Your task to perform on an android device: Go to battery settings Image 0: 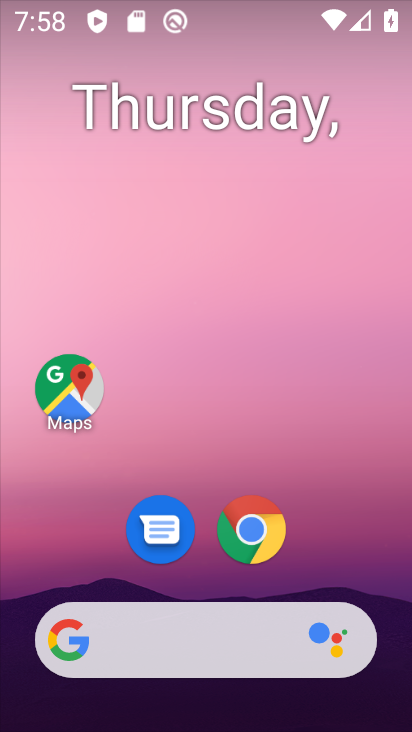
Step 0: press home button
Your task to perform on an android device: Go to battery settings Image 1: 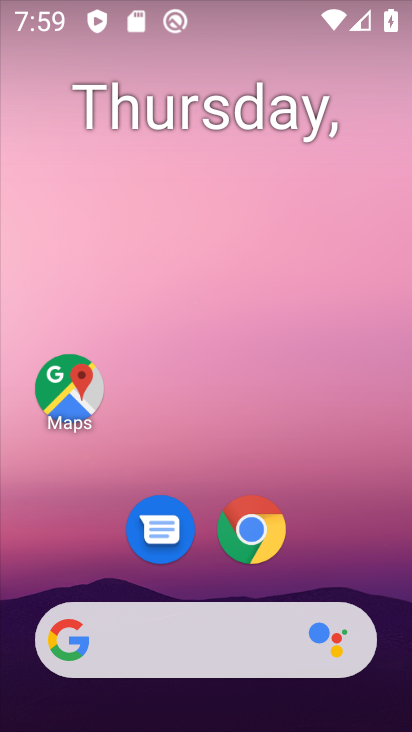
Step 1: drag from (170, 635) to (350, 75)
Your task to perform on an android device: Go to battery settings Image 2: 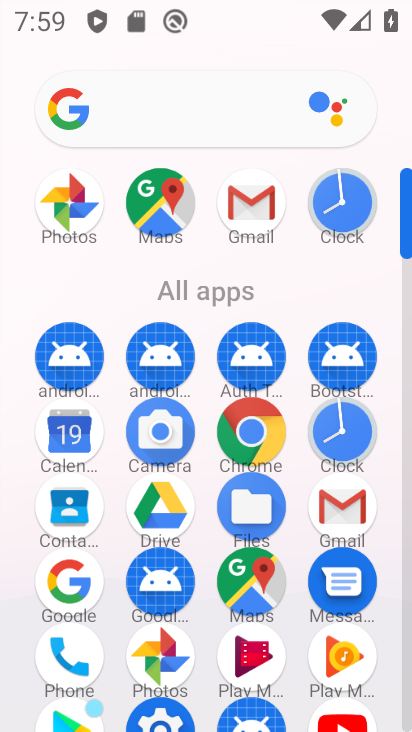
Step 2: drag from (208, 579) to (393, 114)
Your task to perform on an android device: Go to battery settings Image 3: 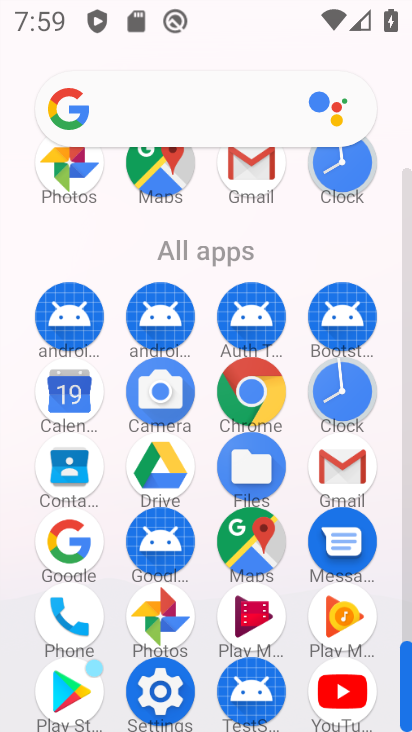
Step 3: click (153, 682)
Your task to perform on an android device: Go to battery settings Image 4: 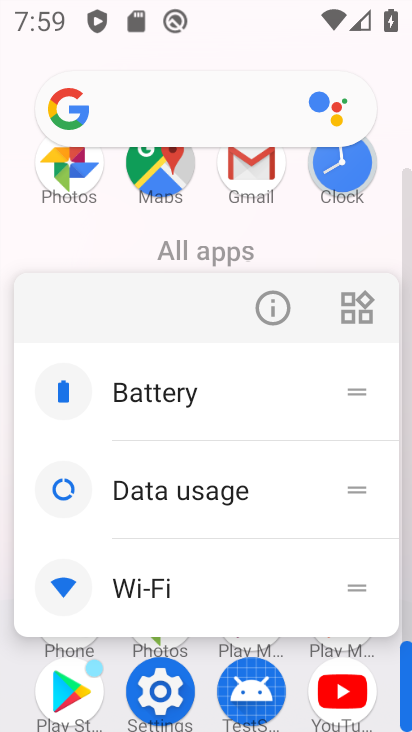
Step 4: click (151, 697)
Your task to perform on an android device: Go to battery settings Image 5: 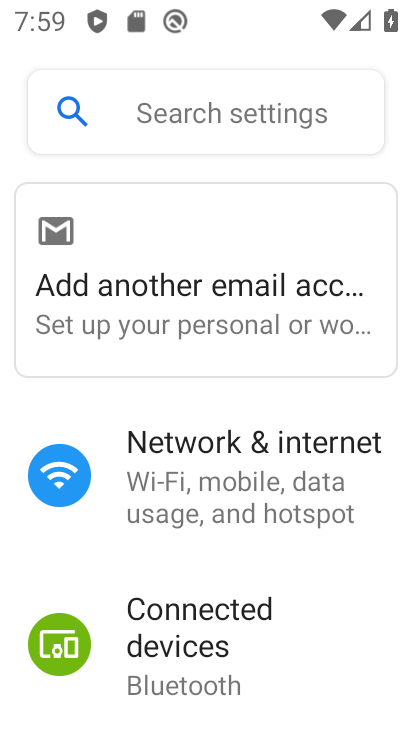
Step 5: drag from (262, 664) to (377, 282)
Your task to perform on an android device: Go to battery settings Image 6: 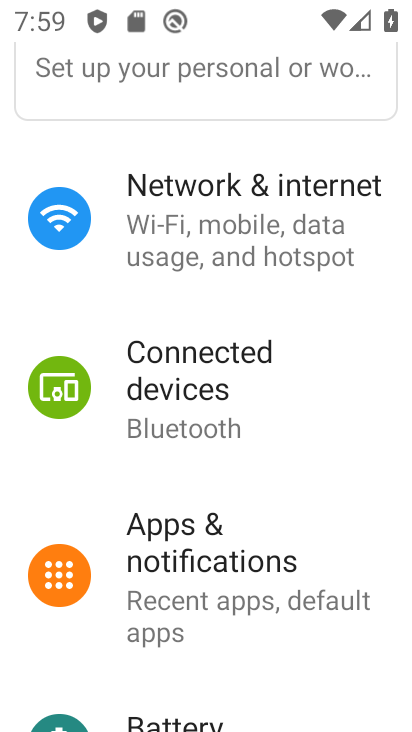
Step 6: drag from (269, 554) to (388, 181)
Your task to perform on an android device: Go to battery settings Image 7: 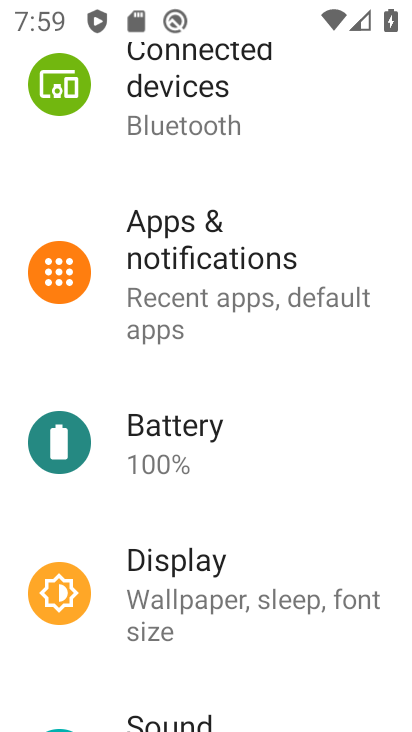
Step 7: click (197, 450)
Your task to perform on an android device: Go to battery settings Image 8: 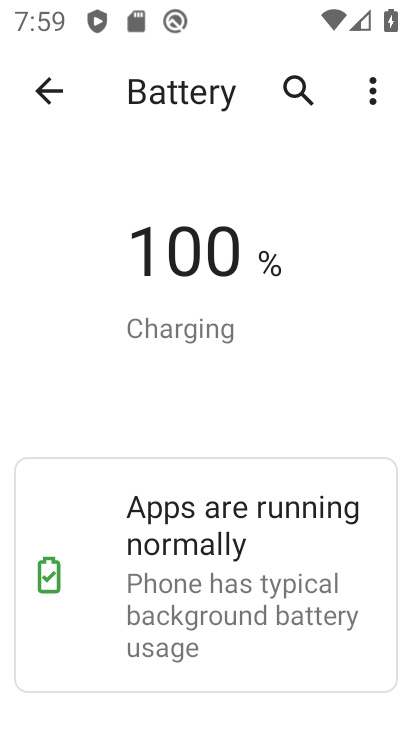
Step 8: task complete